Your task to perform on an android device: open the mobile data screen to see how much data has been used Image 0: 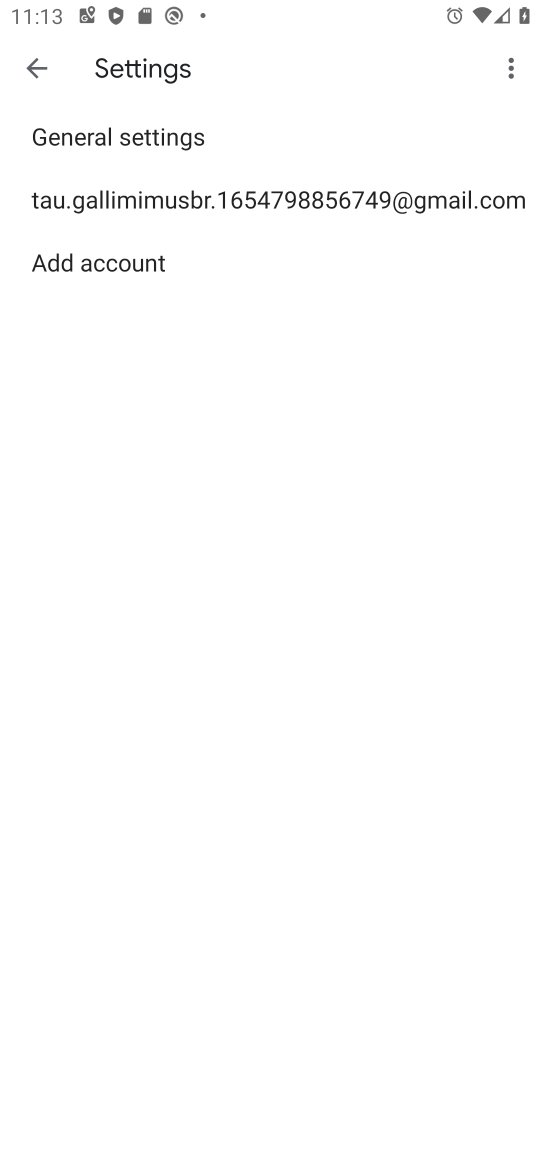
Step 0: press home button
Your task to perform on an android device: open the mobile data screen to see how much data has been used Image 1: 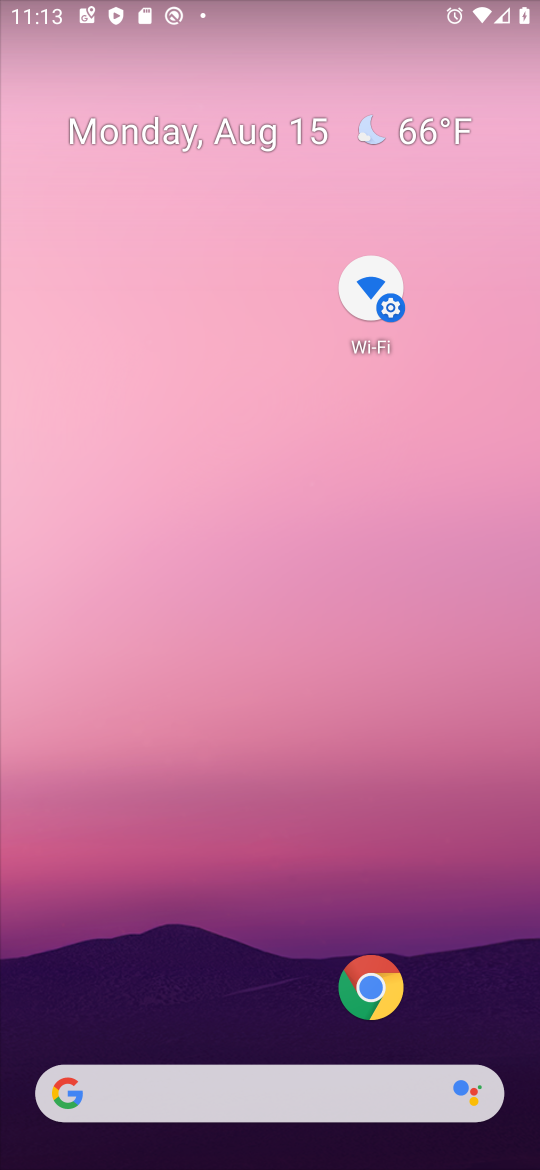
Step 1: drag from (277, 1028) to (177, 22)
Your task to perform on an android device: open the mobile data screen to see how much data has been used Image 2: 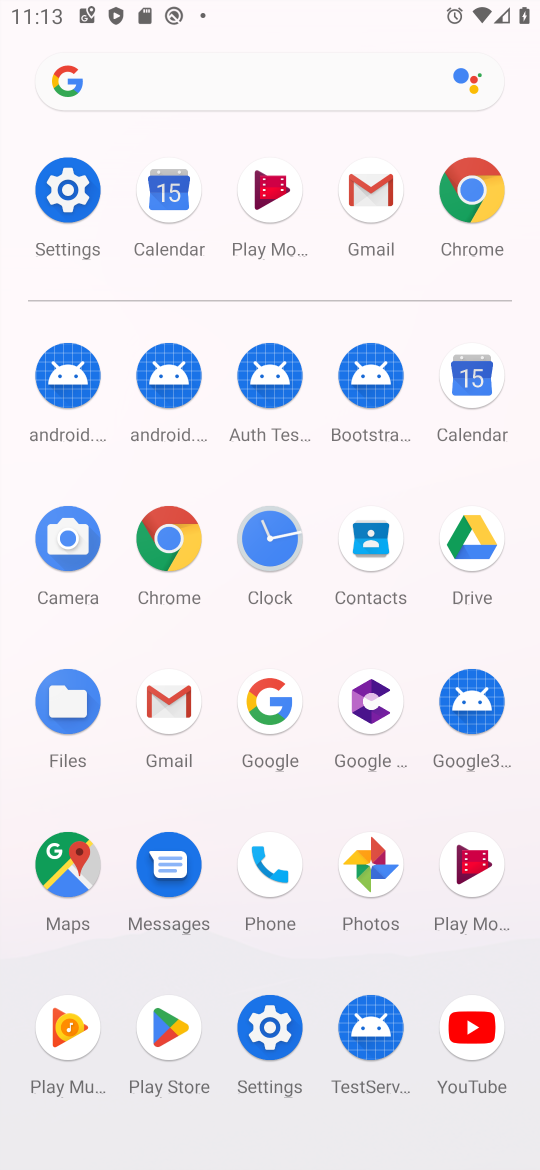
Step 2: click (258, 1045)
Your task to perform on an android device: open the mobile data screen to see how much data has been used Image 3: 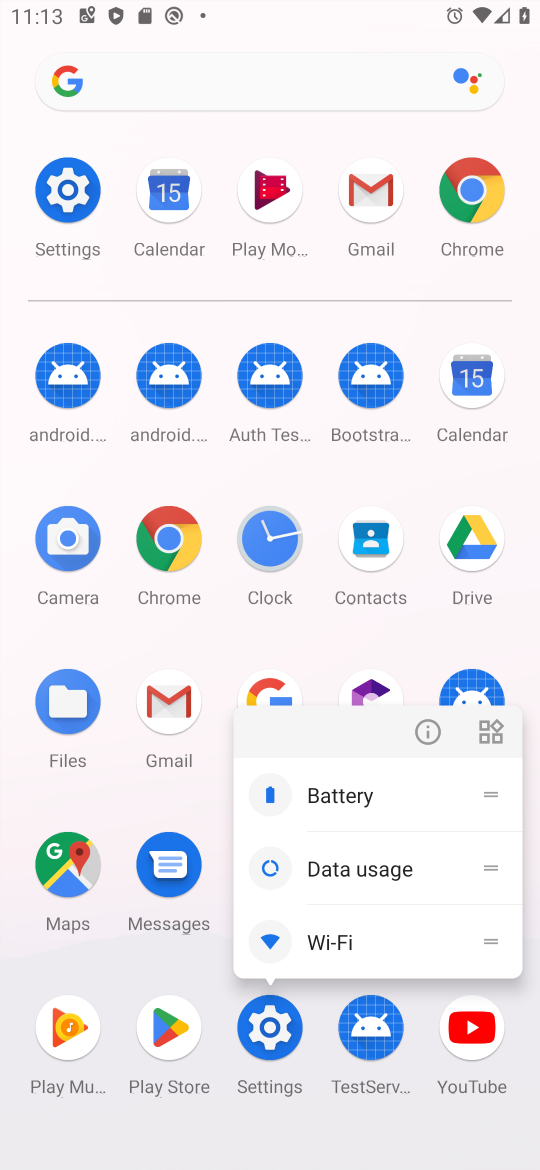
Step 3: click (284, 1046)
Your task to perform on an android device: open the mobile data screen to see how much data has been used Image 4: 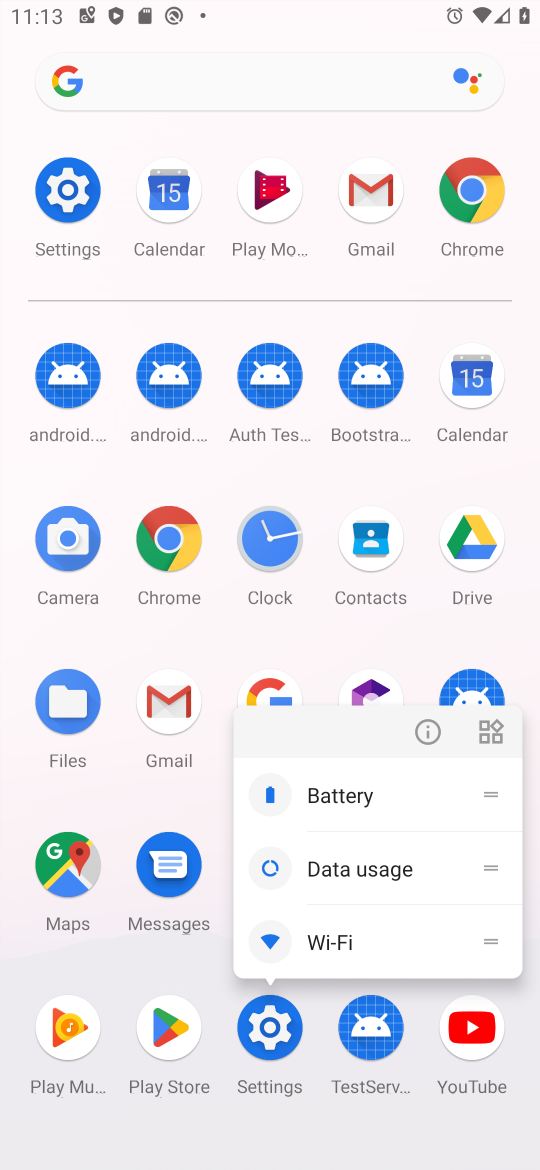
Step 4: click (260, 1039)
Your task to perform on an android device: open the mobile data screen to see how much data has been used Image 5: 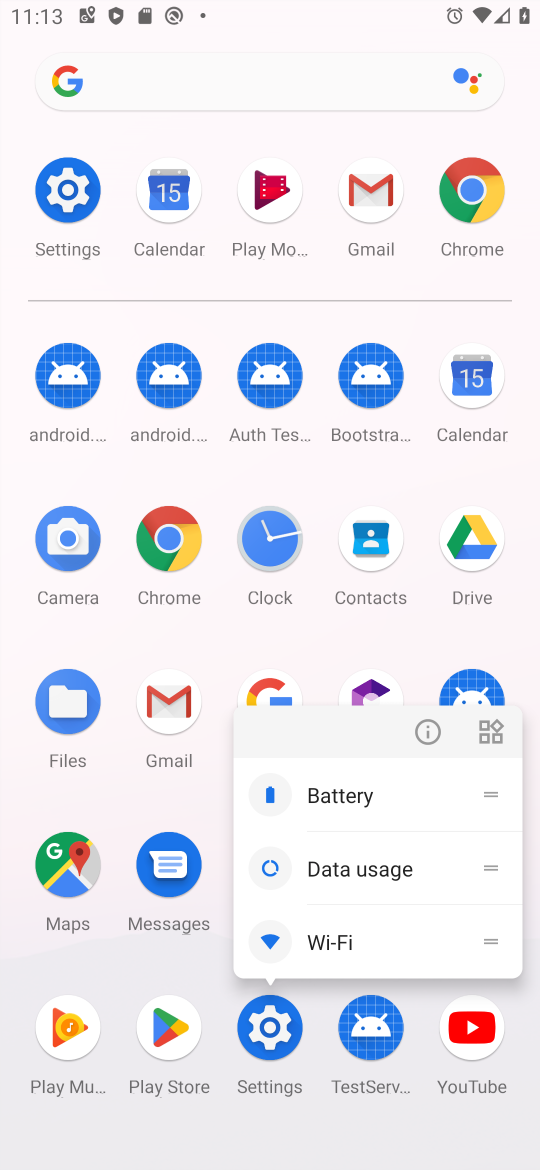
Step 5: click (258, 1037)
Your task to perform on an android device: open the mobile data screen to see how much data has been used Image 6: 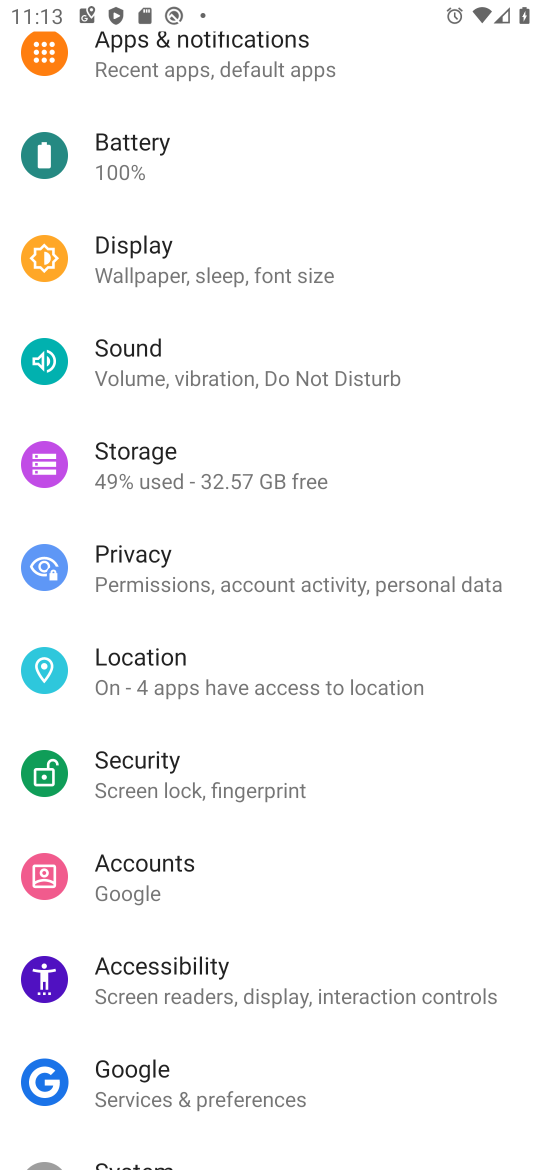
Step 6: drag from (266, 325) to (241, 994)
Your task to perform on an android device: open the mobile data screen to see how much data has been used Image 7: 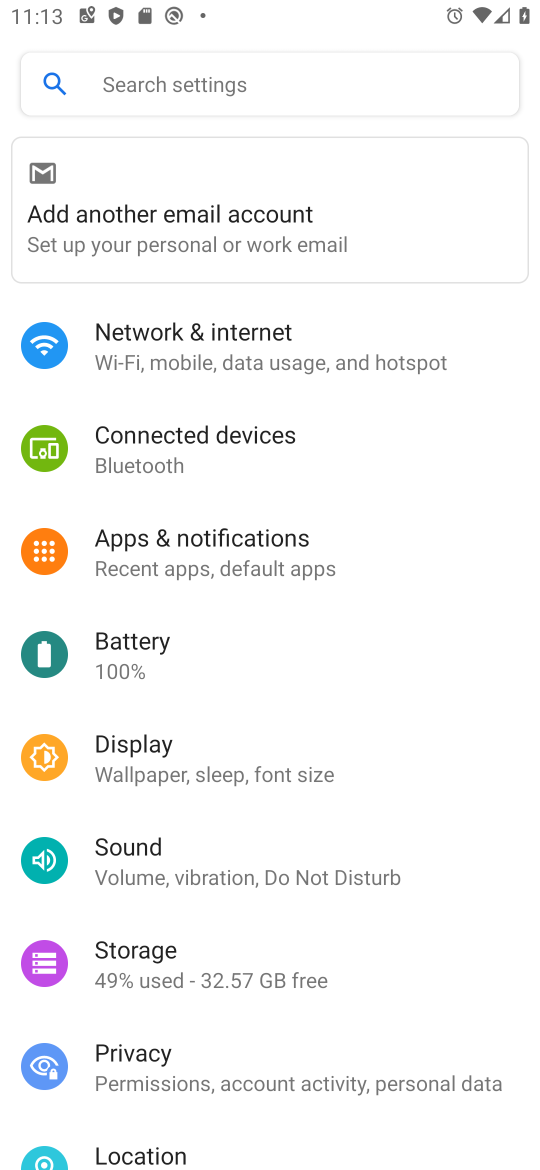
Step 7: click (138, 361)
Your task to perform on an android device: open the mobile data screen to see how much data has been used Image 8: 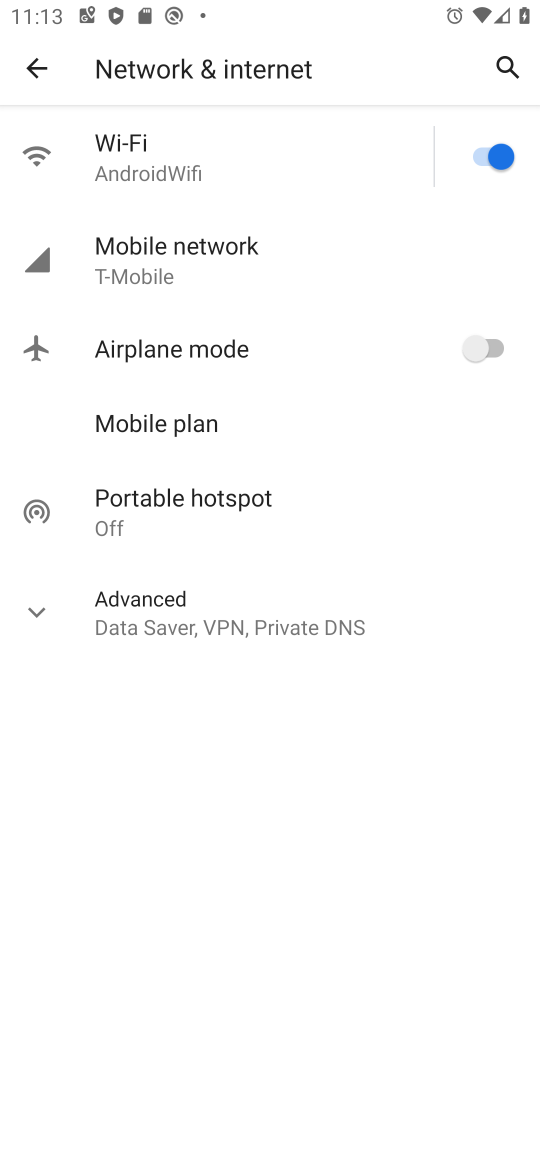
Step 8: click (218, 258)
Your task to perform on an android device: open the mobile data screen to see how much data has been used Image 9: 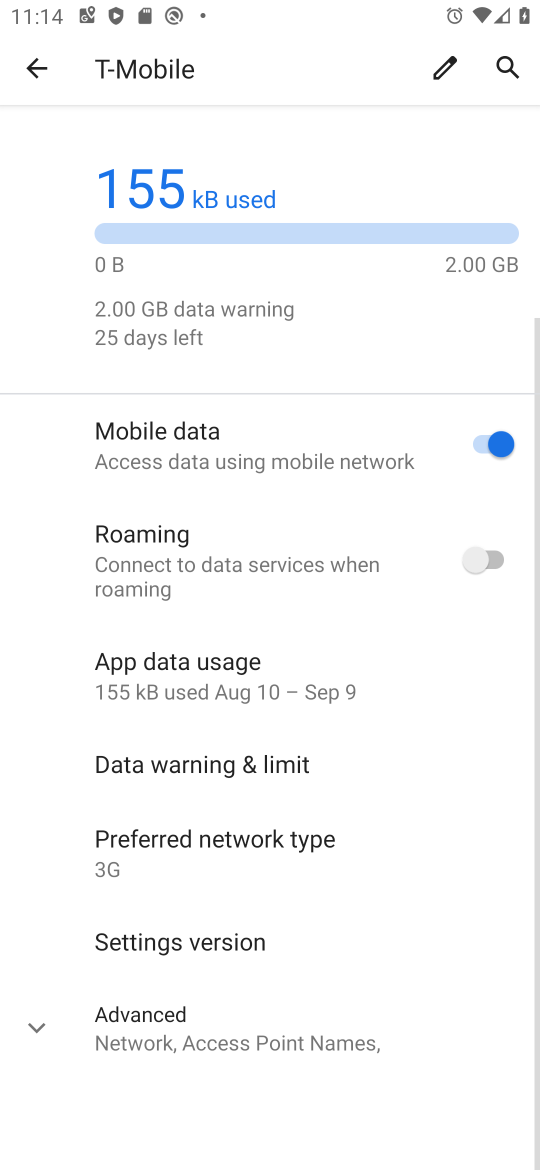
Step 9: task complete